Your task to perform on an android device: change your default location settings in chrome Image 0: 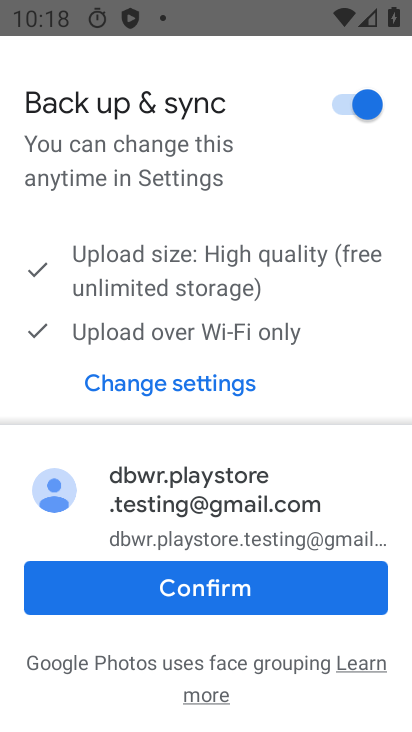
Step 0: press home button
Your task to perform on an android device: change your default location settings in chrome Image 1: 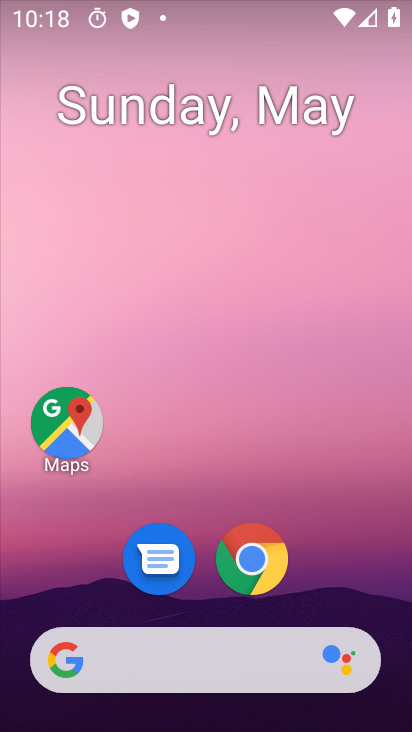
Step 1: drag from (337, 582) to (267, 125)
Your task to perform on an android device: change your default location settings in chrome Image 2: 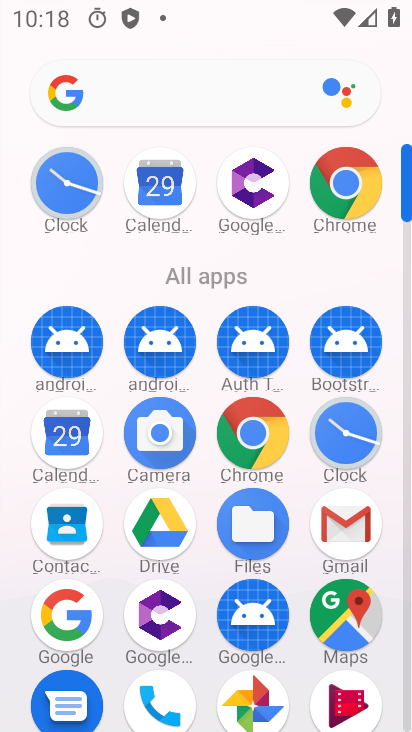
Step 2: click (276, 438)
Your task to perform on an android device: change your default location settings in chrome Image 3: 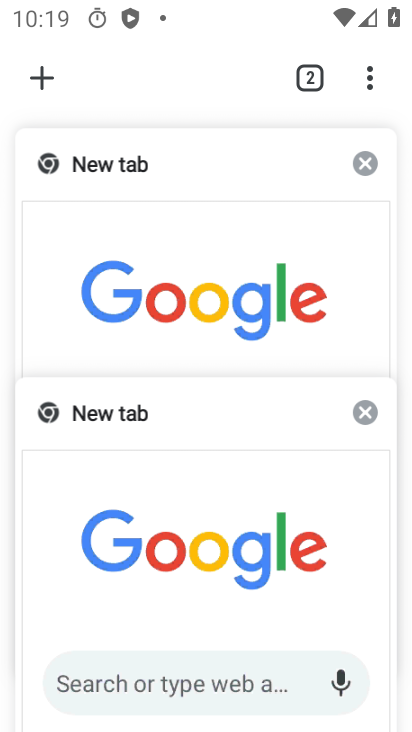
Step 3: click (41, 74)
Your task to perform on an android device: change your default location settings in chrome Image 4: 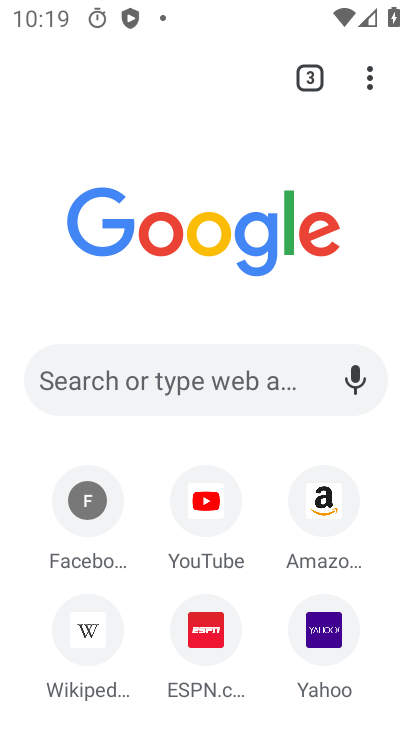
Step 4: click (368, 94)
Your task to perform on an android device: change your default location settings in chrome Image 5: 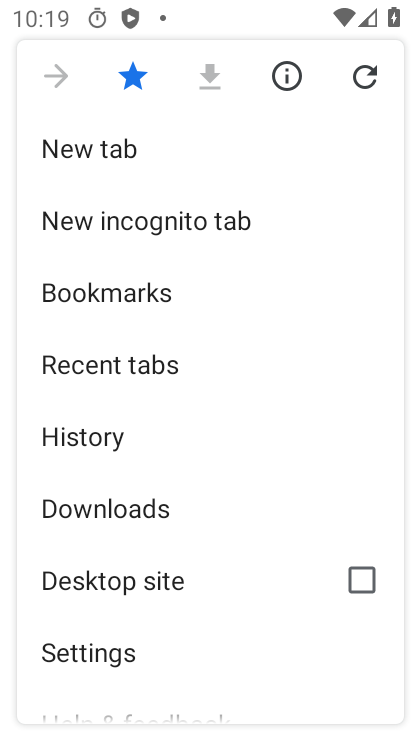
Step 5: drag from (178, 675) to (227, 239)
Your task to perform on an android device: change your default location settings in chrome Image 6: 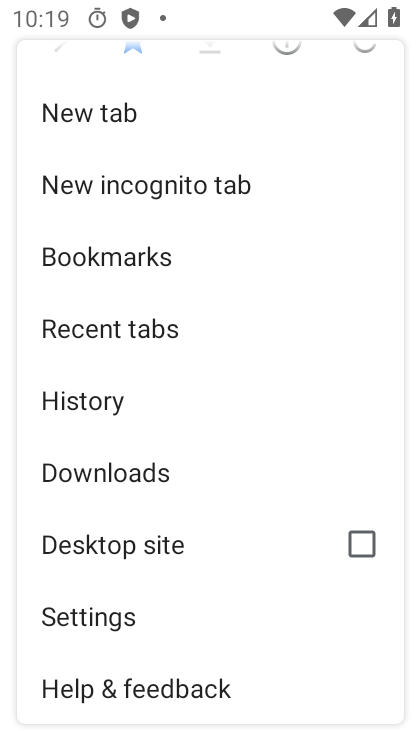
Step 6: click (118, 630)
Your task to perform on an android device: change your default location settings in chrome Image 7: 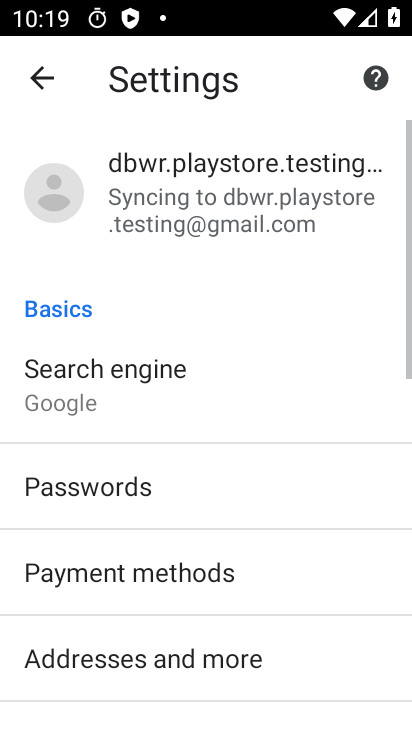
Step 7: drag from (304, 659) to (254, 317)
Your task to perform on an android device: change your default location settings in chrome Image 8: 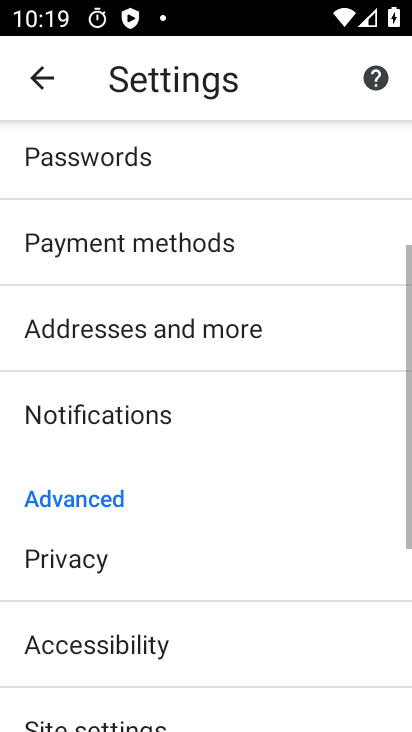
Step 8: drag from (285, 674) to (292, 368)
Your task to perform on an android device: change your default location settings in chrome Image 9: 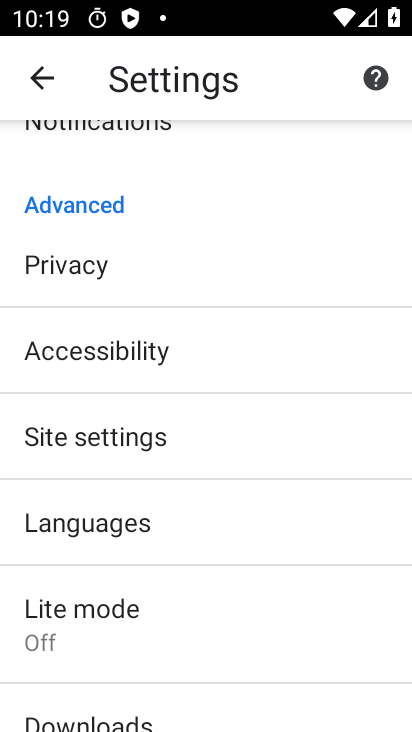
Step 9: click (165, 456)
Your task to perform on an android device: change your default location settings in chrome Image 10: 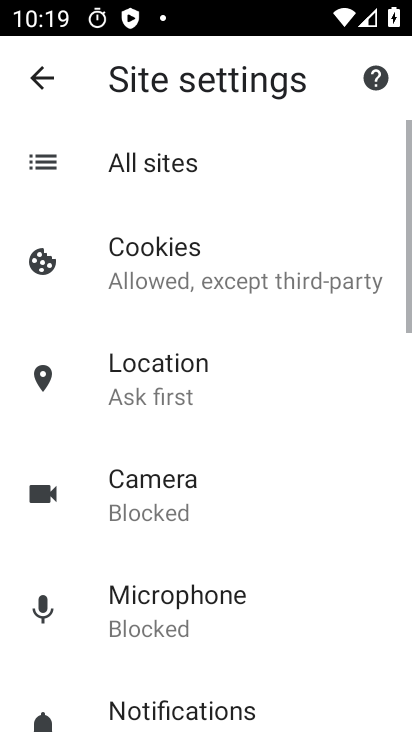
Step 10: drag from (233, 500) to (227, 323)
Your task to perform on an android device: change your default location settings in chrome Image 11: 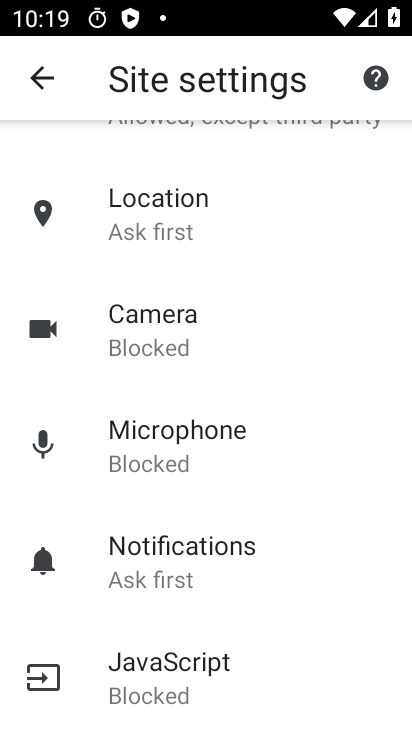
Step 11: drag from (251, 436) to (249, 686)
Your task to perform on an android device: change your default location settings in chrome Image 12: 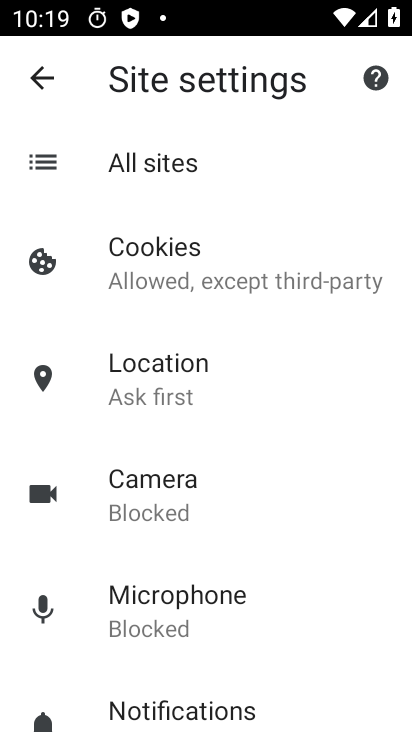
Step 12: click (213, 388)
Your task to perform on an android device: change your default location settings in chrome Image 13: 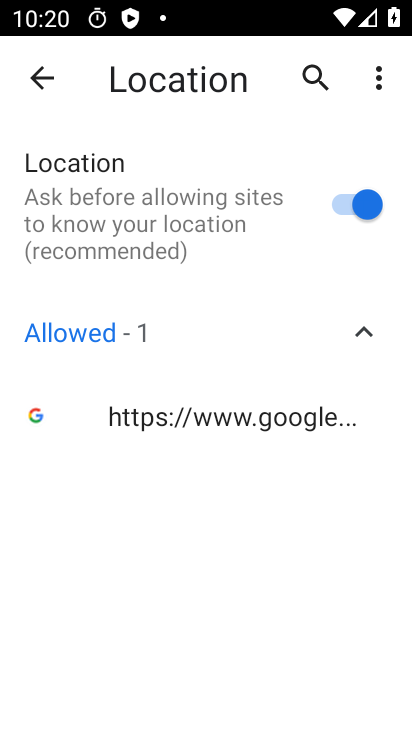
Step 13: task complete